Your task to perform on an android device: Open the Play Movies app and select the watchlist tab. Image 0: 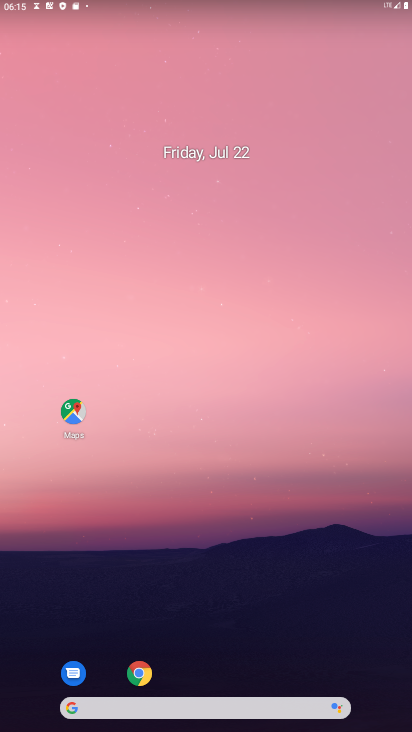
Step 0: press home button
Your task to perform on an android device: Open the Play Movies app and select the watchlist tab. Image 1: 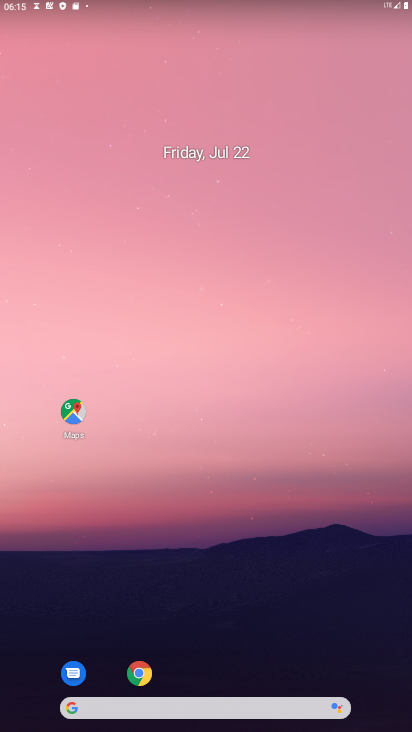
Step 1: drag from (221, 648) to (193, 131)
Your task to perform on an android device: Open the Play Movies app and select the watchlist tab. Image 2: 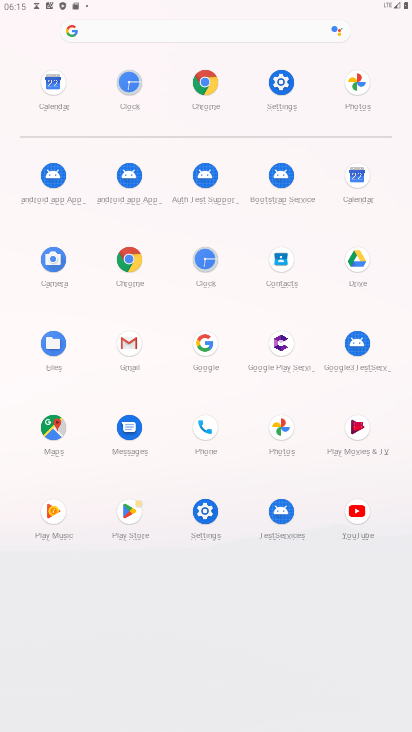
Step 2: click (347, 435)
Your task to perform on an android device: Open the Play Movies app and select the watchlist tab. Image 3: 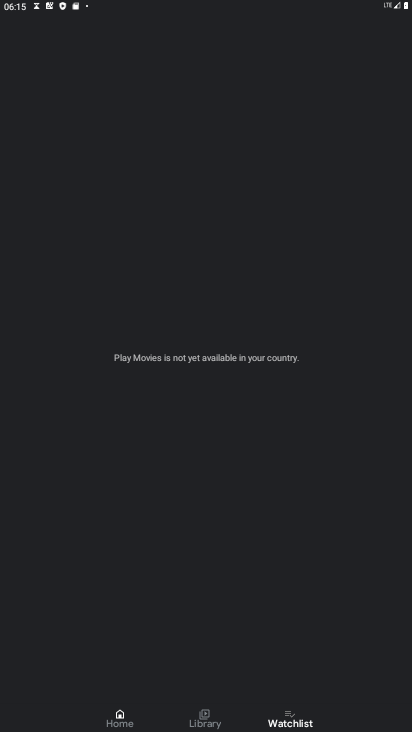
Step 3: click (294, 712)
Your task to perform on an android device: Open the Play Movies app and select the watchlist tab. Image 4: 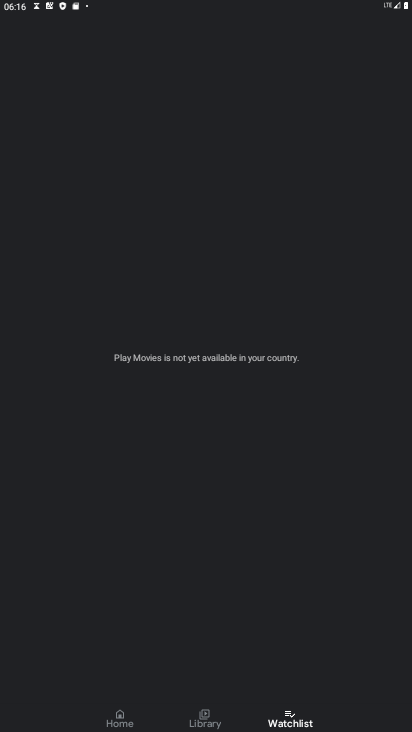
Step 4: task complete